Your task to perform on an android device: Is it going to rain tomorrow? Image 0: 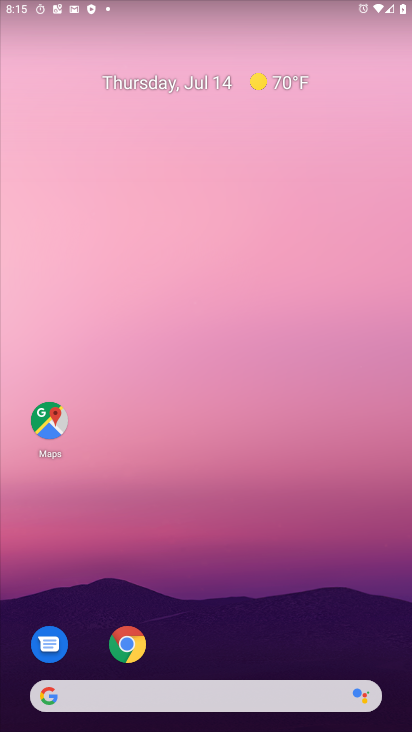
Step 0: click (196, 689)
Your task to perform on an android device: Is it going to rain tomorrow? Image 1: 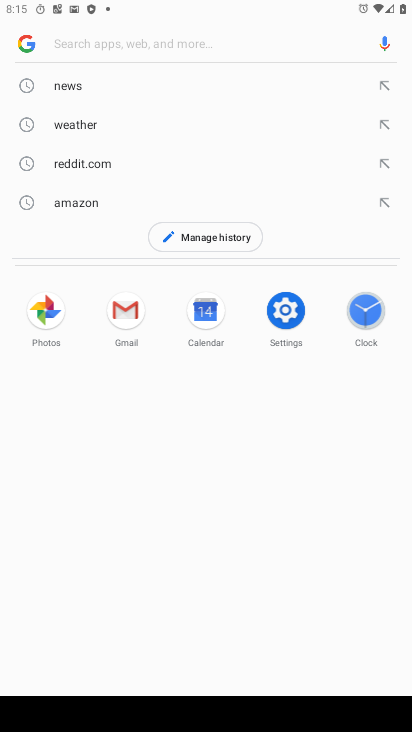
Step 1: click (82, 127)
Your task to perform on an android device: Is it going to rain tomorrow? Image 2: 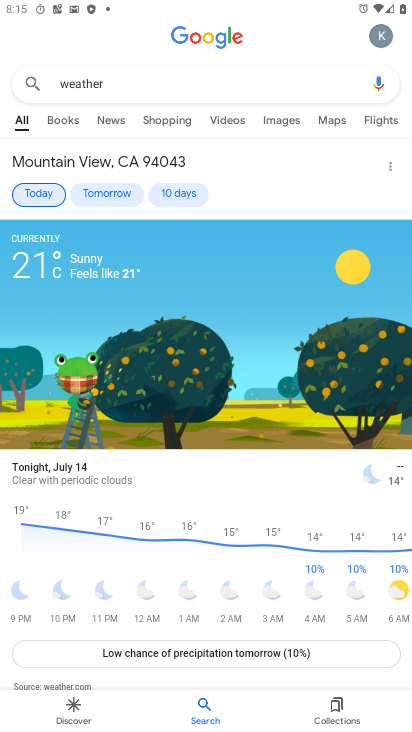
Step 2: click (122, 190)
Your task to perform on an android device: Is it going to rain tomorrow? Image 3: 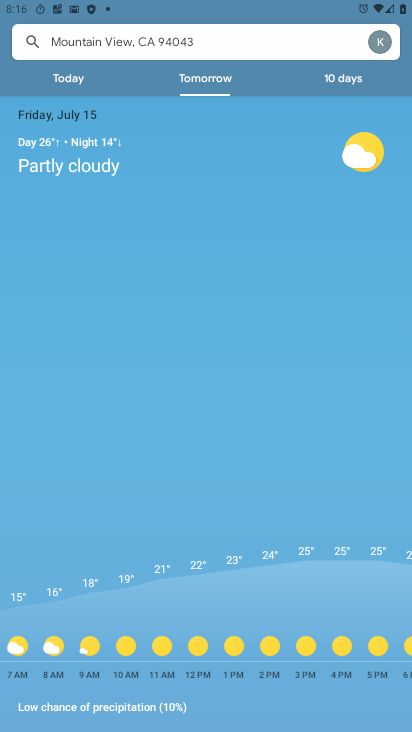
Step 3: task complete